Your task to perform on an android device: Open the calendar app, open the side menu, and click the "Day" option Image 0: 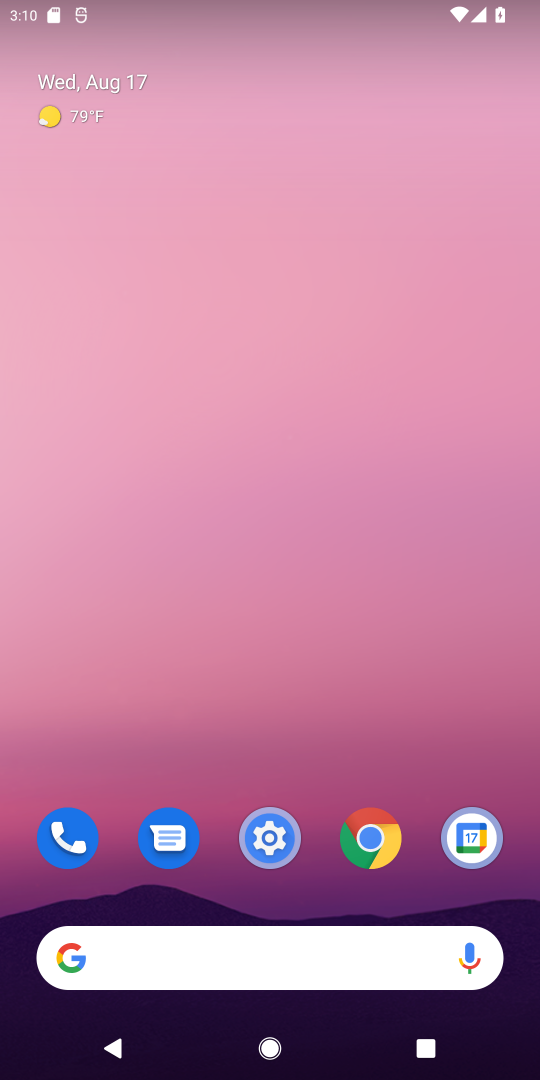
Step 0: drag from (227, 928) to (221, 376)
Your task to perform on an android device: Open the calendar app, open the side menu, and click the "Day" option Image 1: 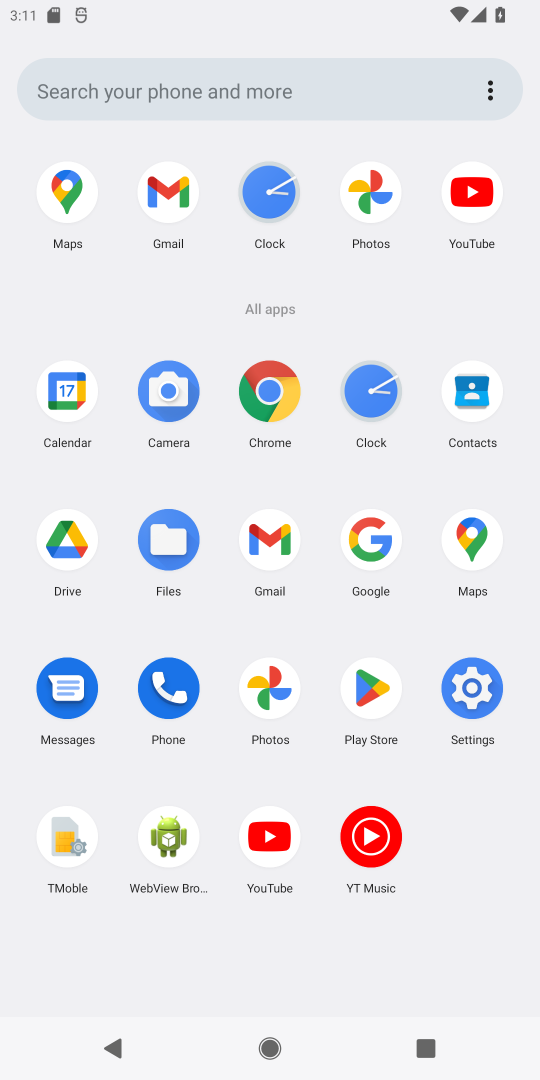
Step 1: click (68, 392)
Your task to perform on an android device: Open the calendar app, open the side menu, and click the "Day" option Image 2: 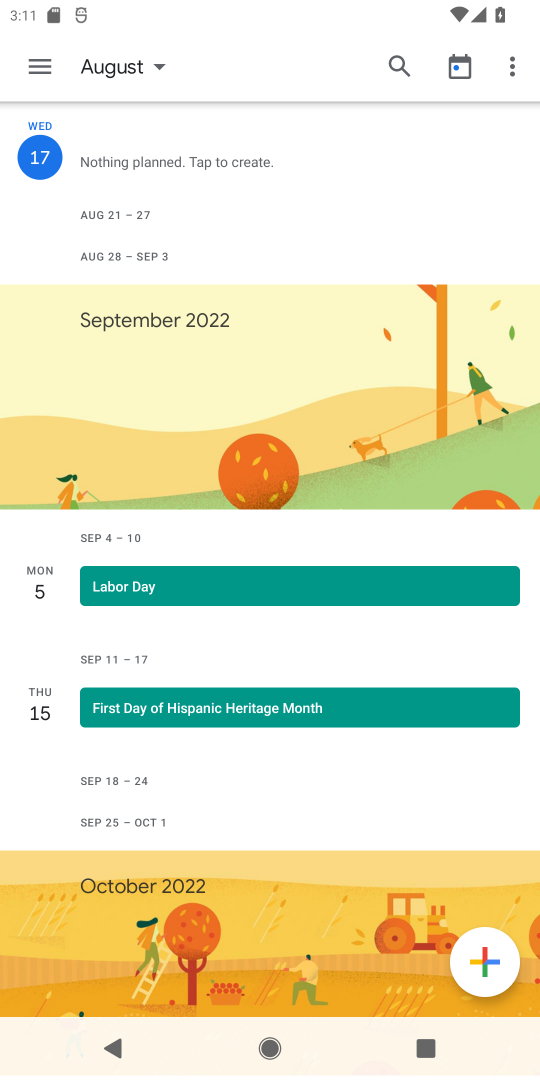
Step 2: click (30, 65)
Your task to perform on an android device: Open the calendar app, open the side menu, and click the "Day" option Image 3: 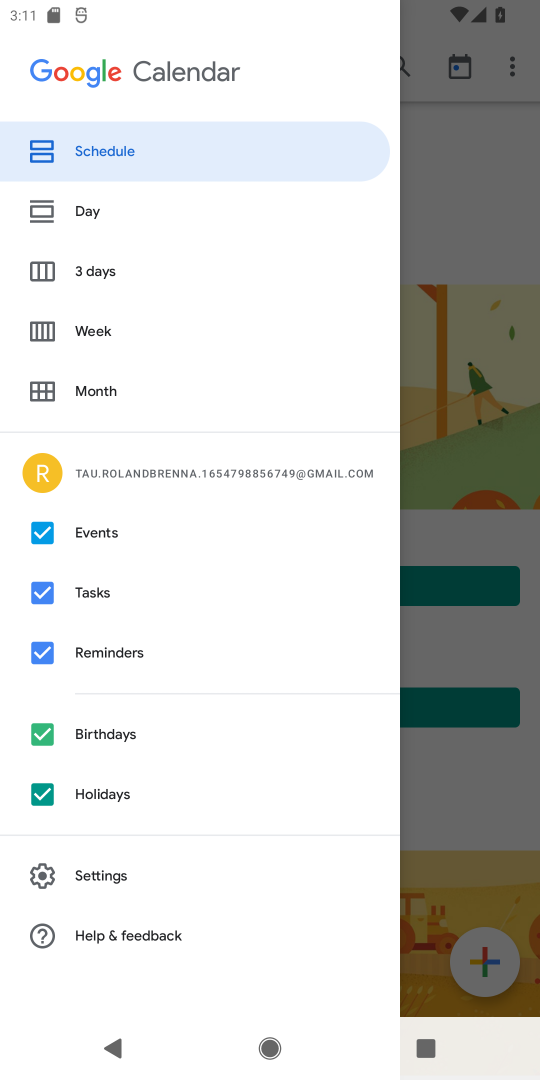
Step 3: click (95, 218)
Your task to perform on an android device: Open the calendar app, open the side menu, and click the "Day" option Image 4: 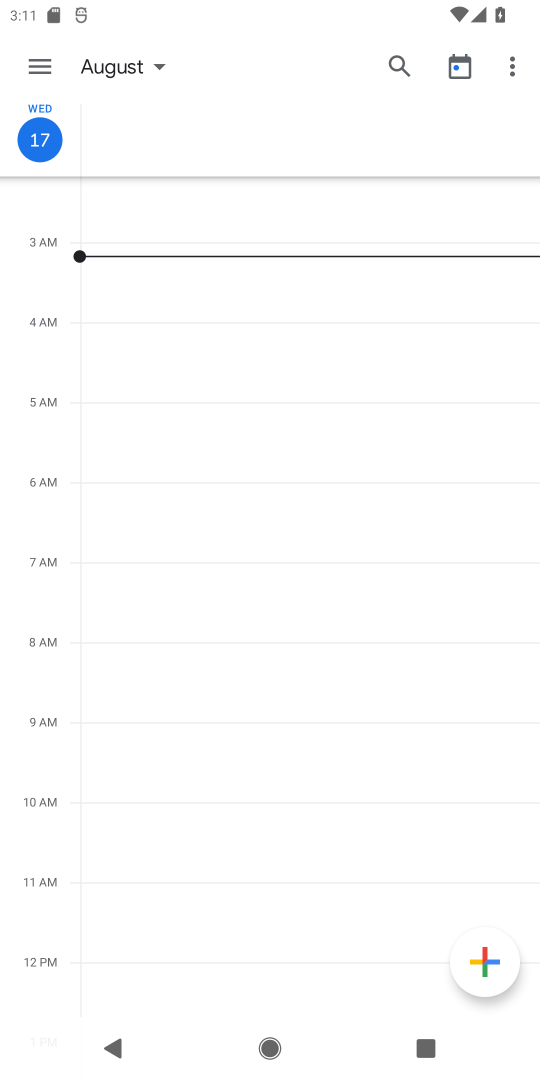
Step 4: task complete